Your task to perform on an android device: open chrome privacy settings Image 0: 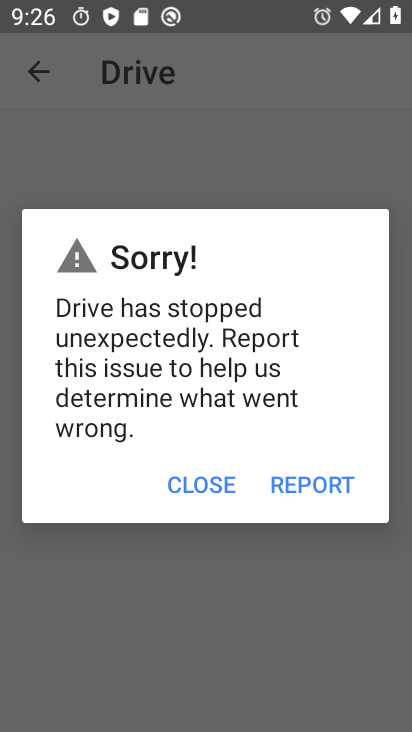
Step 0: click (201, 490)
Your task to perform on an android device: open chrome privacy settings Image 1: 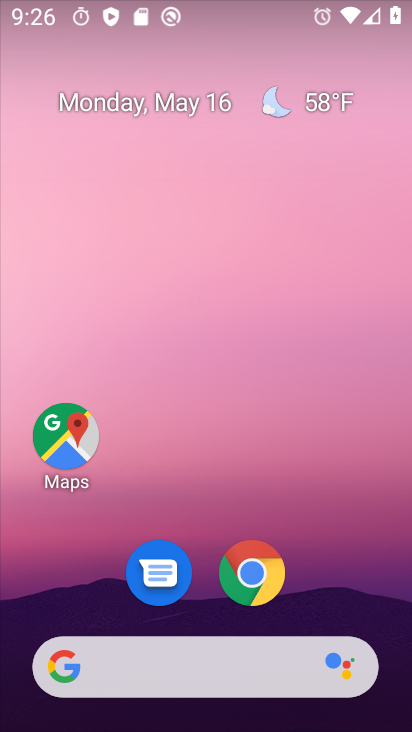
Step 1: drag from (305, 580) to (121, 56)
Your task to perform on an android device: open chrome privacy settings Image 2: 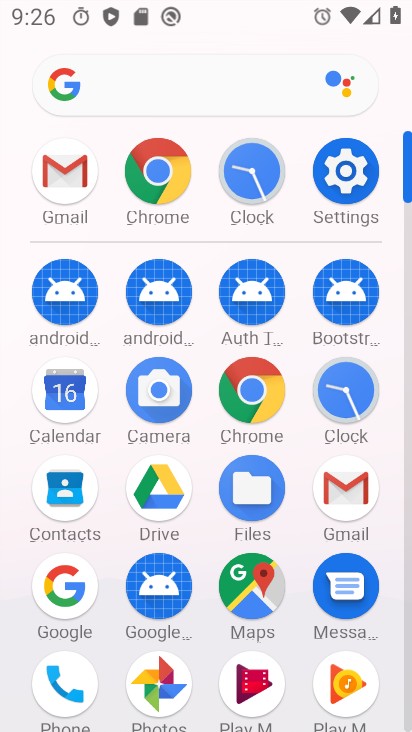
Step 2: drag from (180, 206) to (84, 7)
Your task to perform on an android device: open chrome privacy settings Image 3: 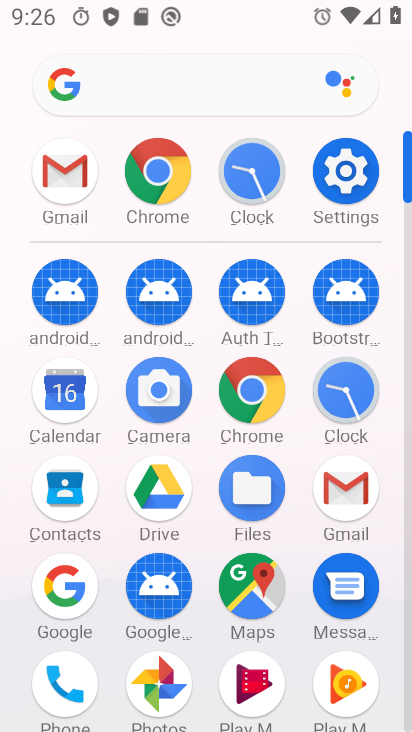
Step 3: click (348, 192)
Your task to perform on an android device: open chrome privacy settings Image 4: 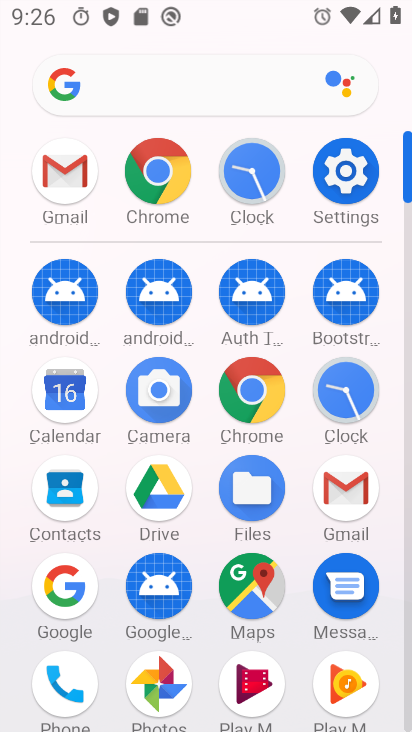
Step 4: click (348, 192)
Your task to perform on an android device: open chrome privacy settings Image 5: 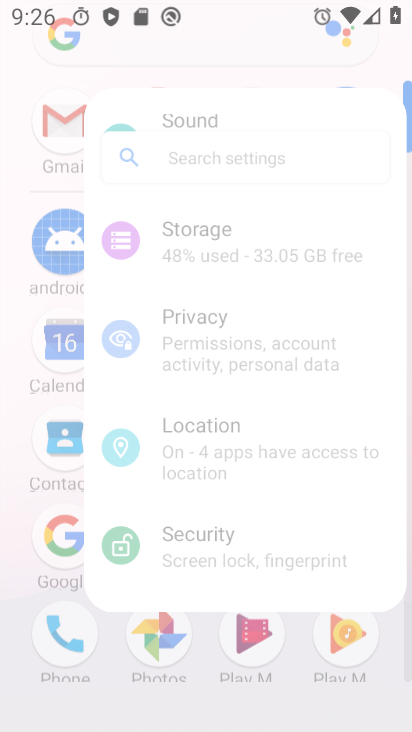
Step 5: click (348, 192)
Your task to perform on an android device: open chrome privacy settings Image 6: 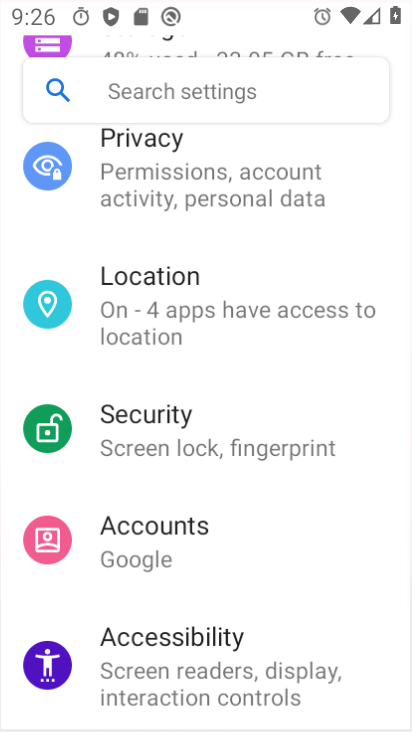
Step 6: click (348, 191)
Your task to perform on an android device: open chrome privacy settings Image 7: 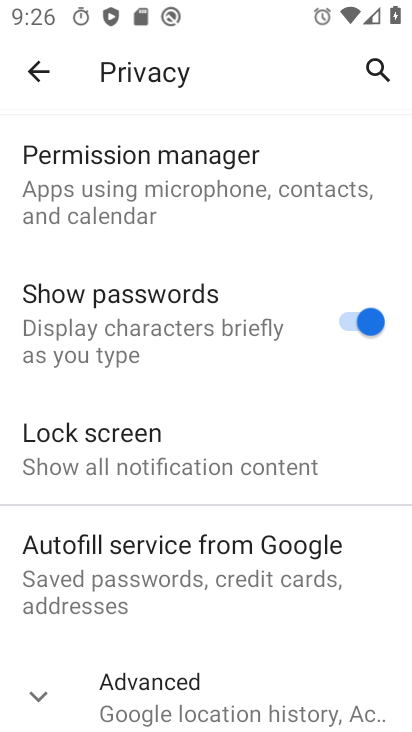
Step 7: task complete